Your task to perform on an android device: Go to notification settings Image 0: 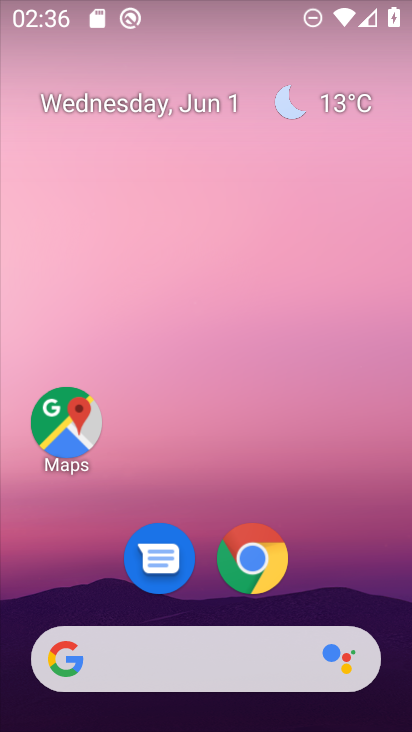
Step 0: click (396, 627)
Your task to perform on an android device: Go to notification settings Image 1: 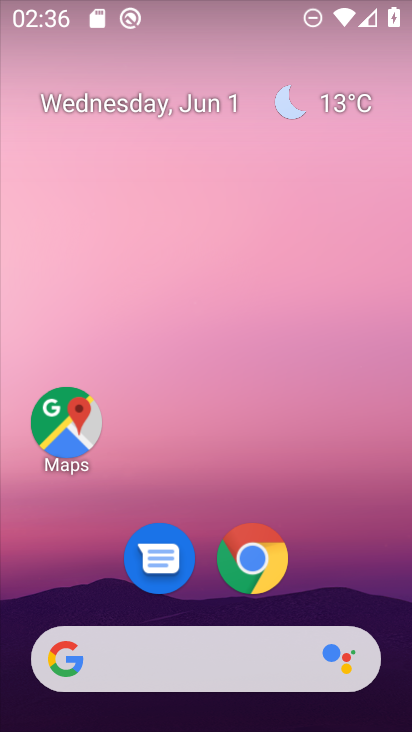
Step 1: drag from (378, 477) to (311, 104)
Your task to perform on an android device: Go to notification settings Image 2: 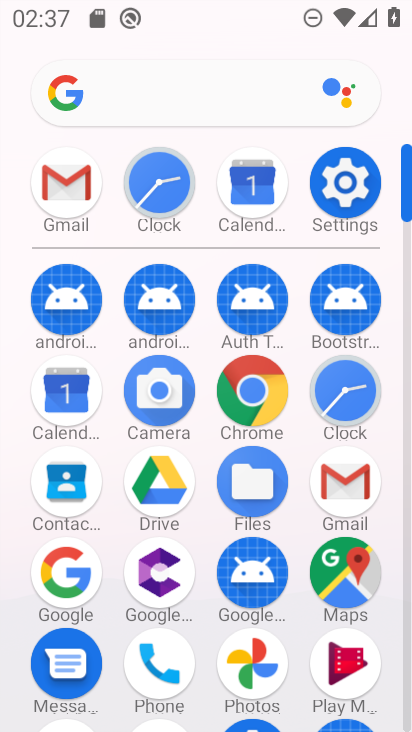
Step 2: click (334, 192)
Your task to perform on an android device: Go to notification settings Image 3: 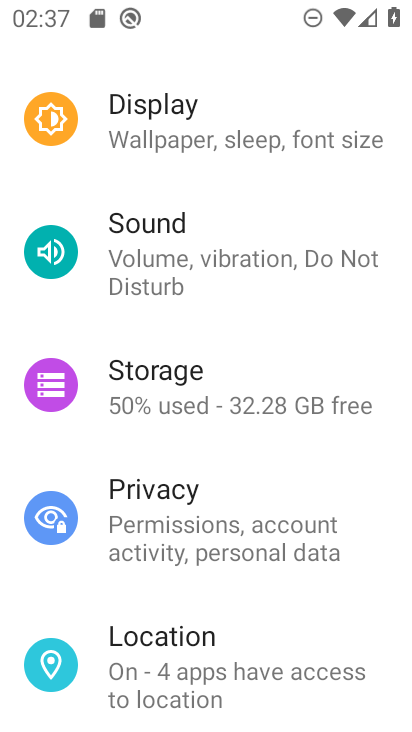
Step 3: drag from (268, 116) to (280, 555)
Your task to perform on an android device: Go to notification settings Image 4: 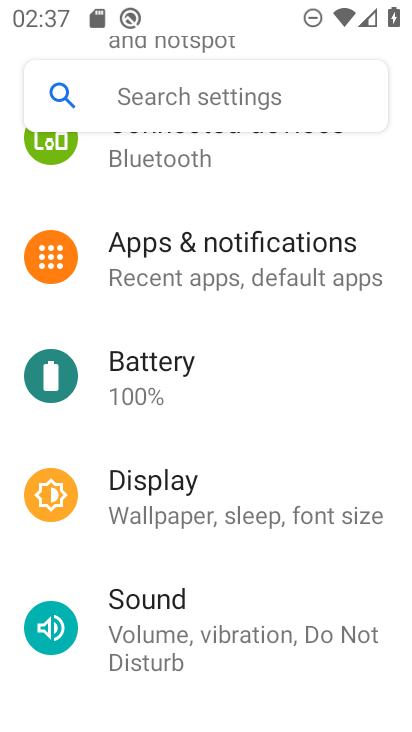
Step 4: click (232, 246)
Your task to perform on an android device: Go to notification settings Image 5: 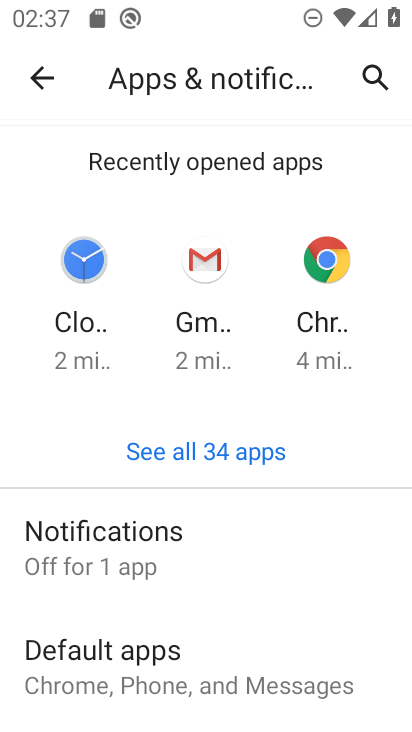
Step 5: click (90, 535)
Your task to perform on an android device: Go to notification settings Image 6: 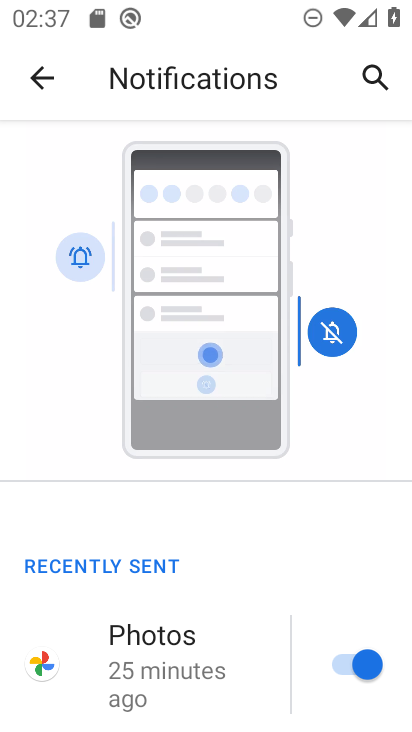
Step 6: drag from (248, 715) to (249, 278)
Your task to perform on an android device: Go to notification settings Image 7: 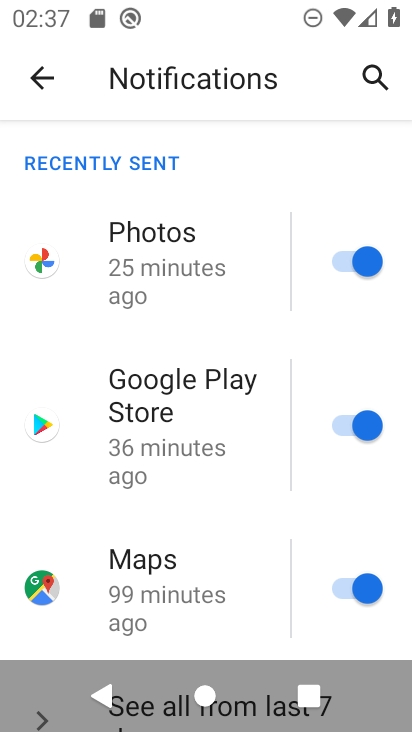
Step 7: drag from (273, 614) to (240, 298)
Your task to perform on an android device: Go to notification settings Image 8: 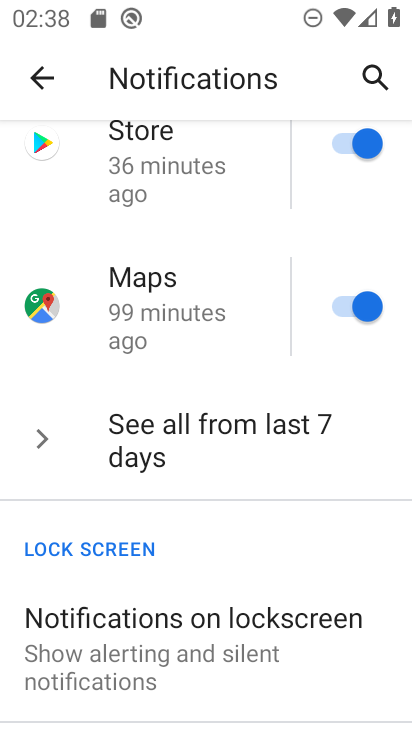
Step 8: click (166, 624)
Your task to perform on an android device: Go to notification settings Image 9: 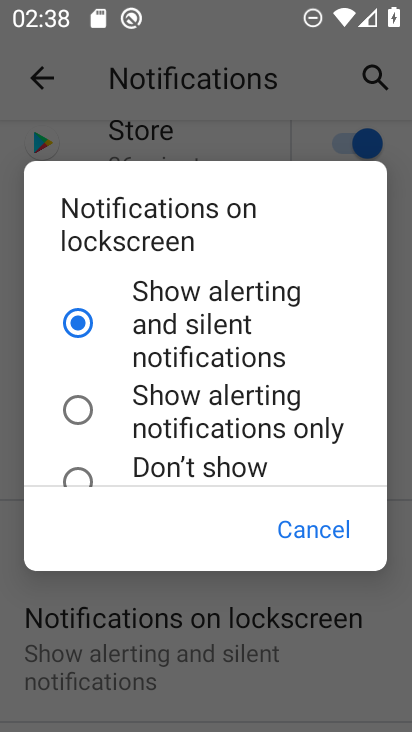
Step 9: click (291, 527)
Your task to perform on an android device: Go to notification settings Image 10: 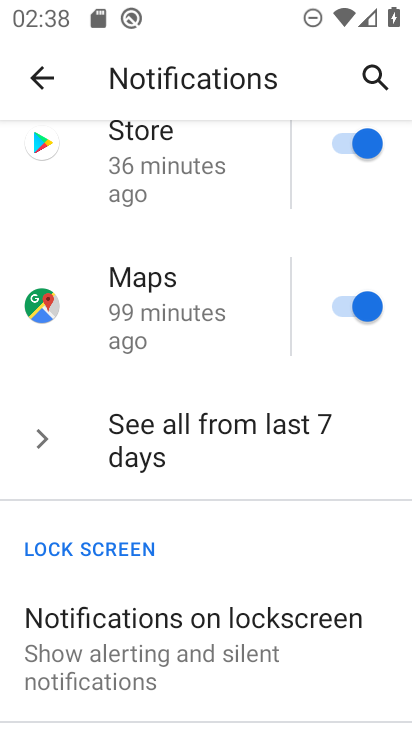
Step 10: drag from (200, 616) to (215, 229)
Your task to perform on an android device: Go to notification settings Image 11: 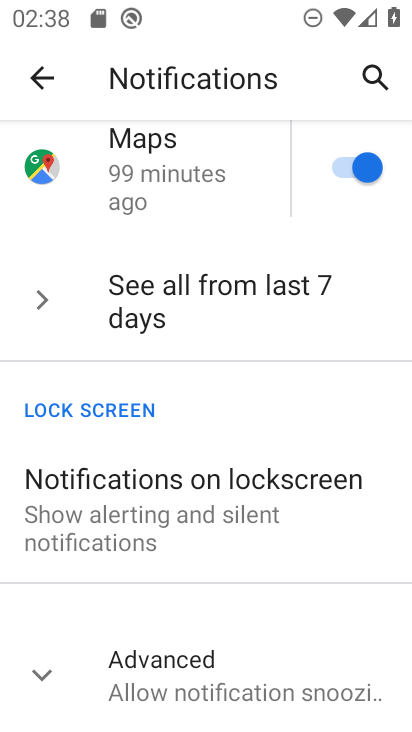
Step 11: click (44, 665)
Your task to perform on an android device: Go to notification settings Image 12: 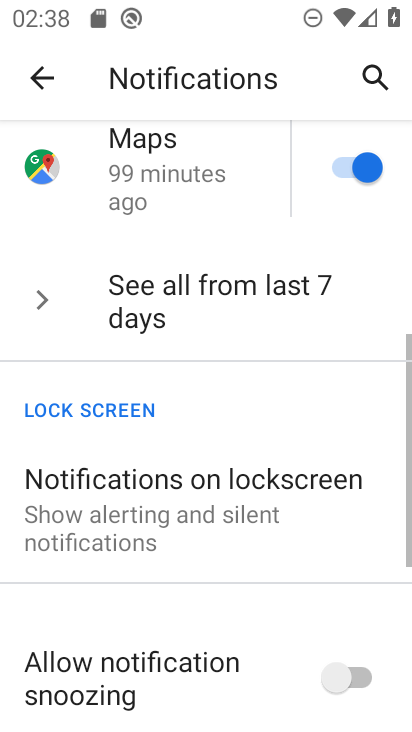
Step 12: task complete